Your task to perform on an android device: Search for flights from Mexico city to Zurich Image 0: 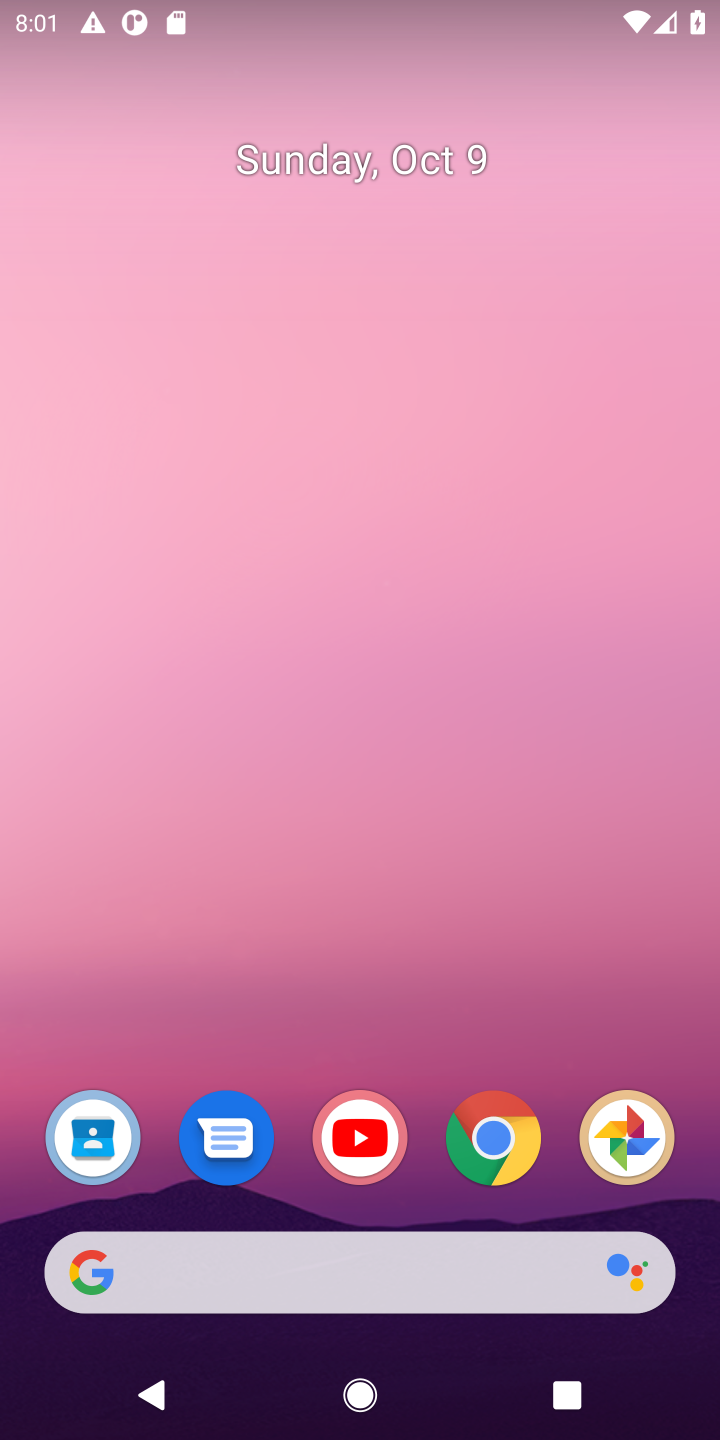
Step 0: drag from (320, 1056) to (391, 440)
Your task to perform on an android device: Search for flights from Mexico city to Zurich Image 1: 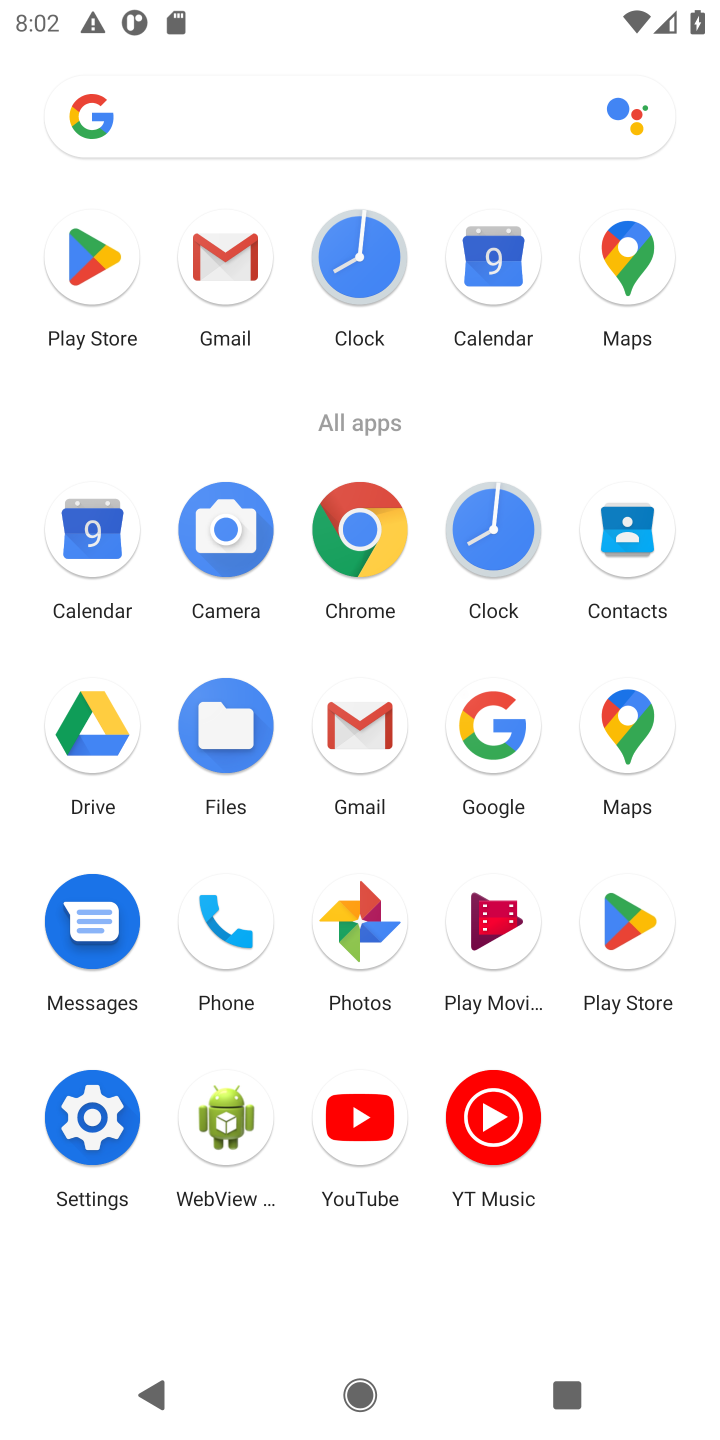
Step 1: click (496, 698)
Your task to perform on an android device: Search for flights from Mexico city to Zurich Image 2: 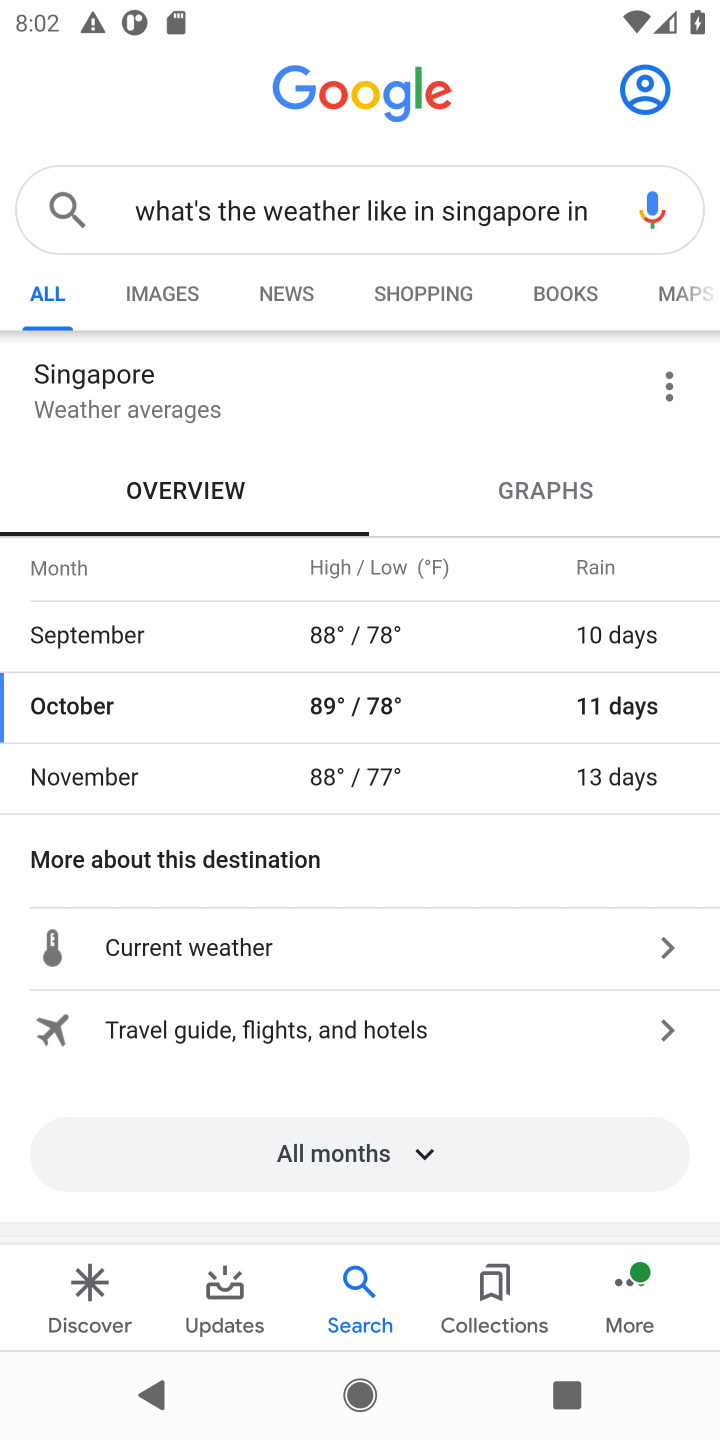
Step 2: click (504, 195)
Your task to perform on an android device: Search for flights from Mexico city to Zurich Image 3: 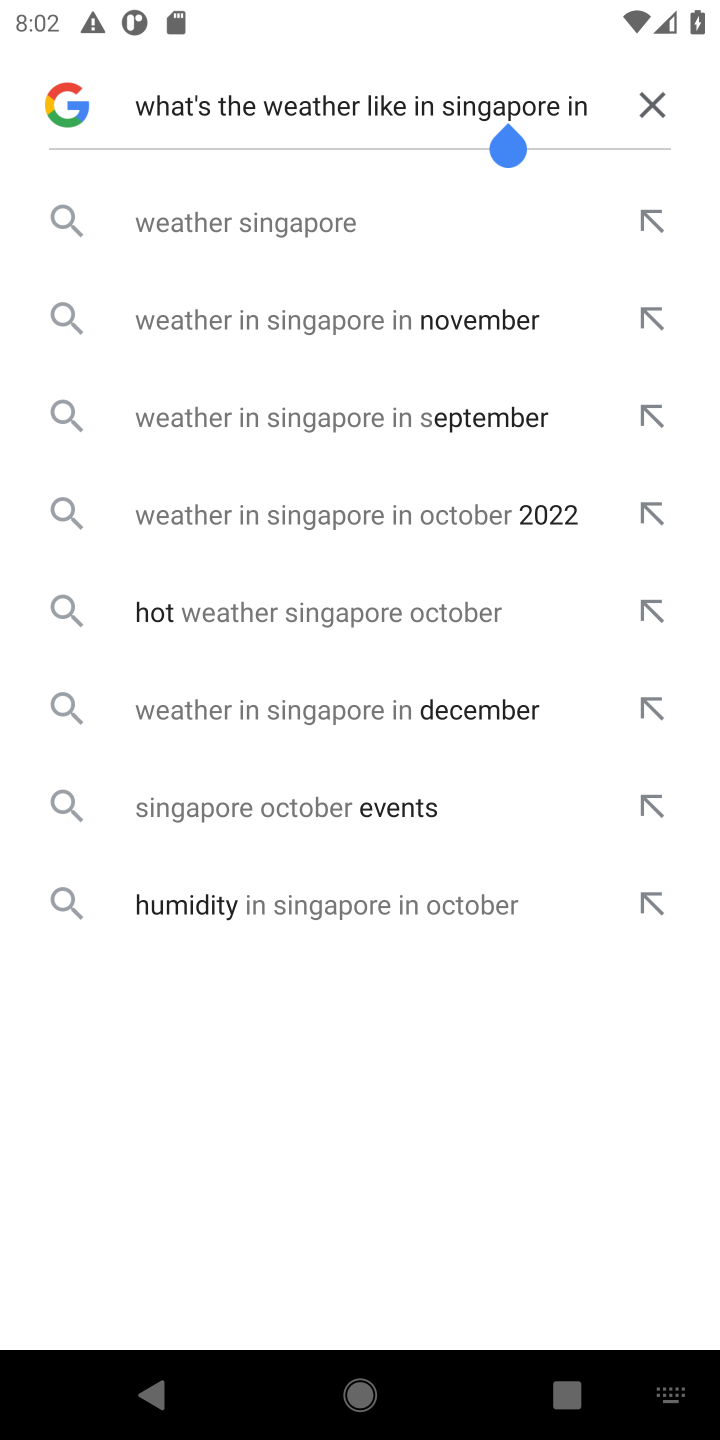
Step 3: click (646, 101)
Your task to perform on an android device: Search for flights from Mexico city to Zurich Image 4: 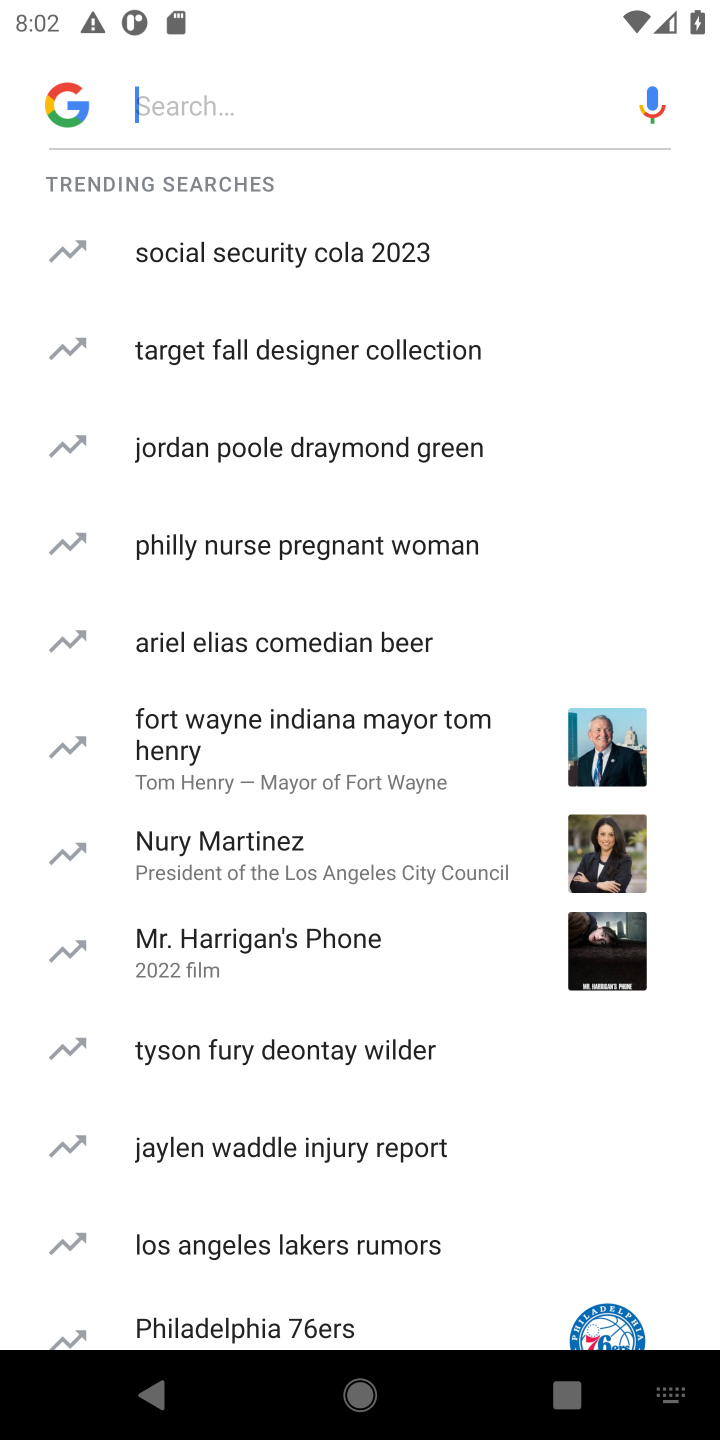
Step 4: click (204, 88)
Your task to perform on an android device: Search for flights from Mexico city to Zurich Image 5: 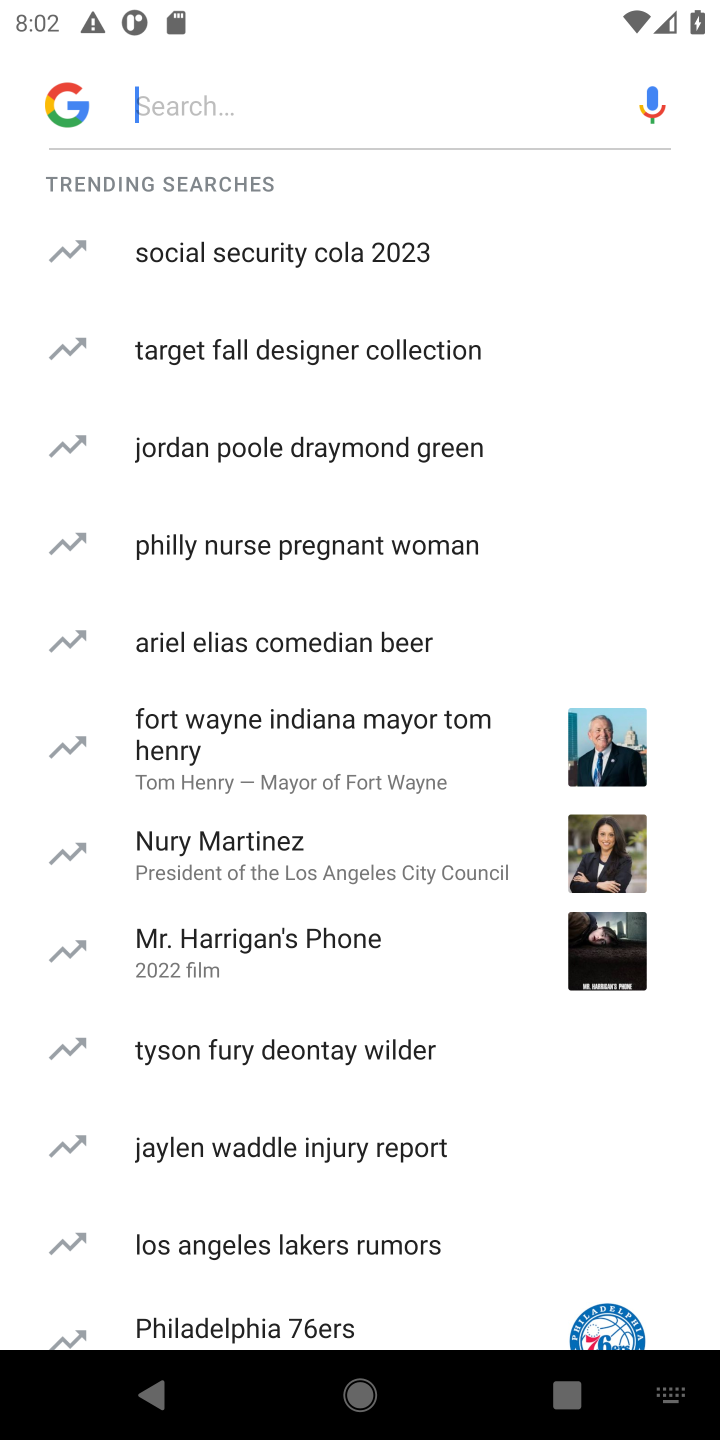
Step 5: type "Search for flights from Mexico city to Zurich "
Your task to perform on an android device: Search for flights from Mexico city to Zurich Image 6: 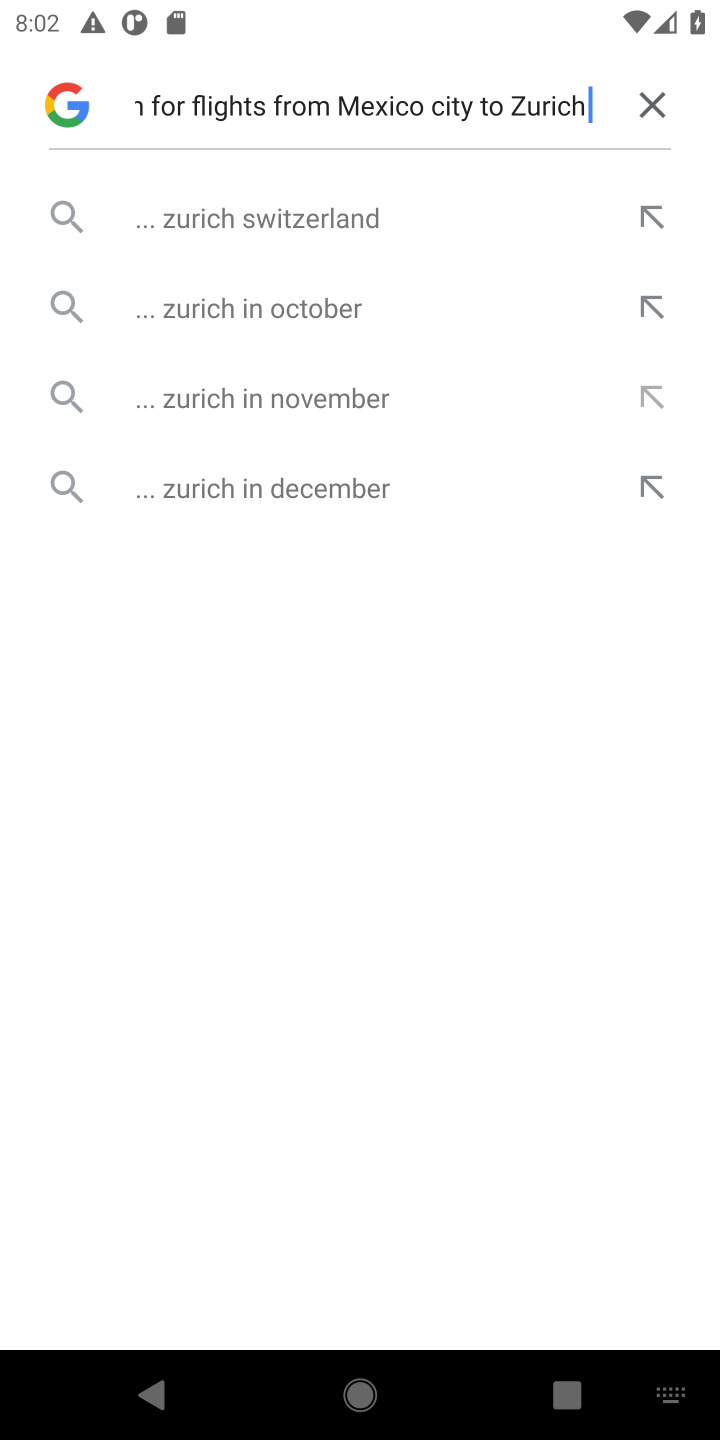
Step 6: click (236, 203)
Your task to perform on an android device: Search for flights from Mexico city to Zurich Image 7: 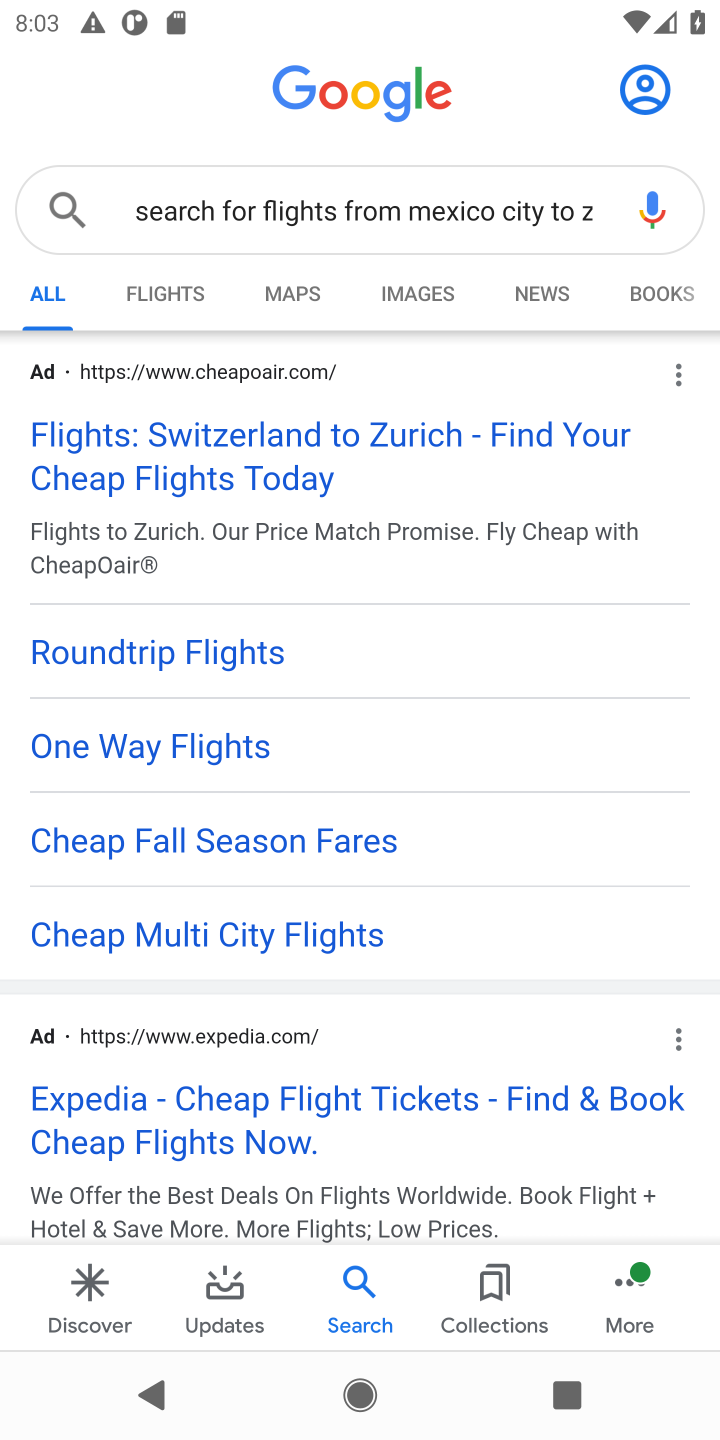
Step 7: drag from (249, 1129) to (303, 538)
Your task to perform on an android device: Search for flights from Mexico city to Zurich Image 8: 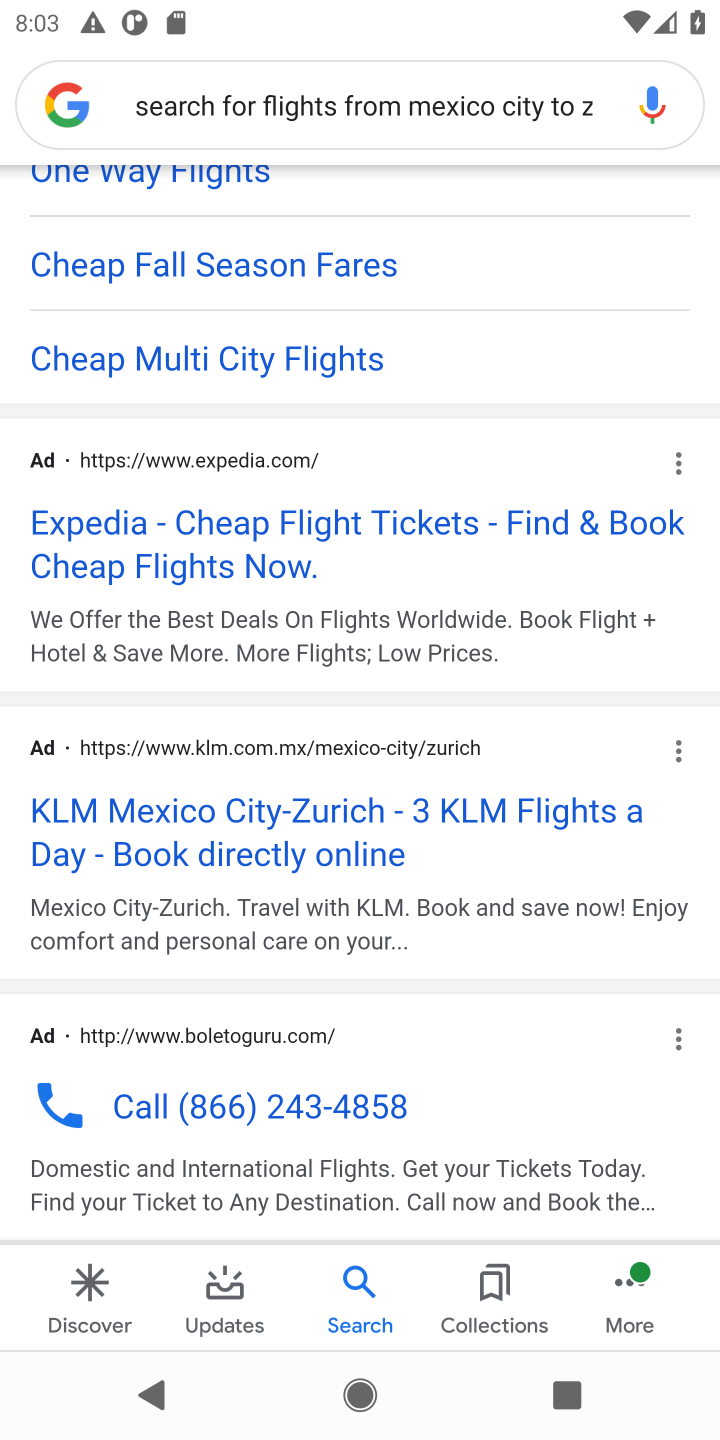
Step 8: click (99, 814)
Your task to perform on an android device: Search for flights from Mexico city to Zurich Image 9: 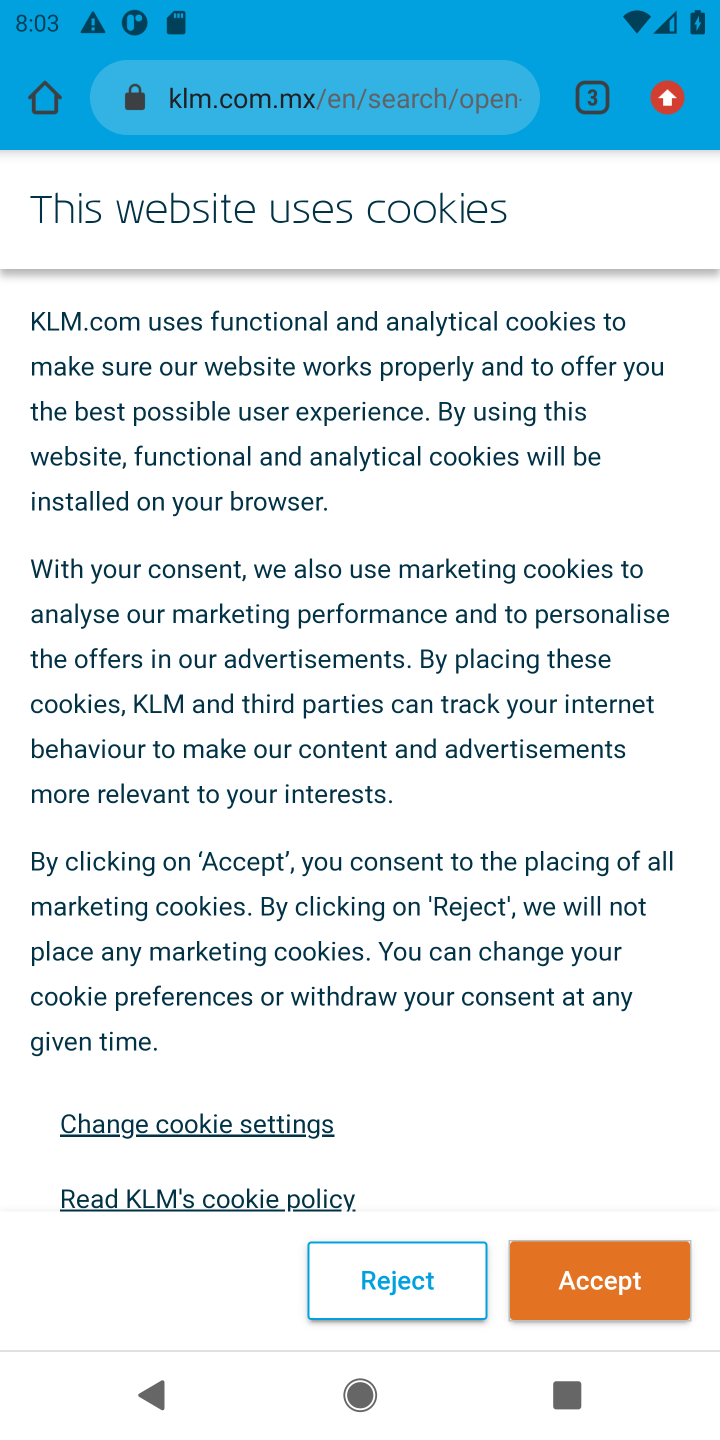
Step 9: task complete